Your task to perform on an android device: Open my contact list Image 0: 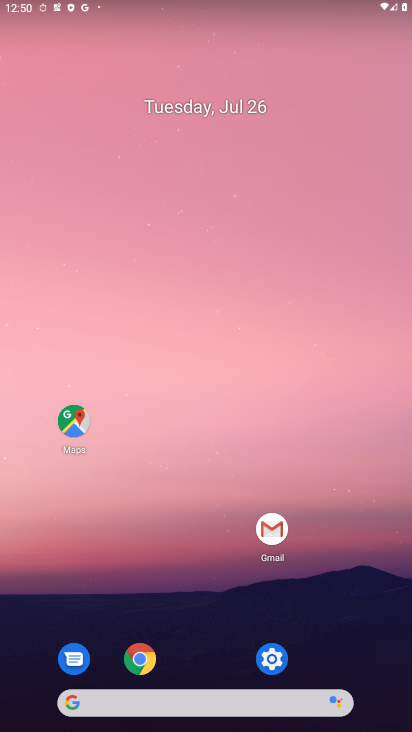
Step 0: drag from (245, 708) to (218, 138)
Your task to perform on an android device: Open my contact list Image 1: 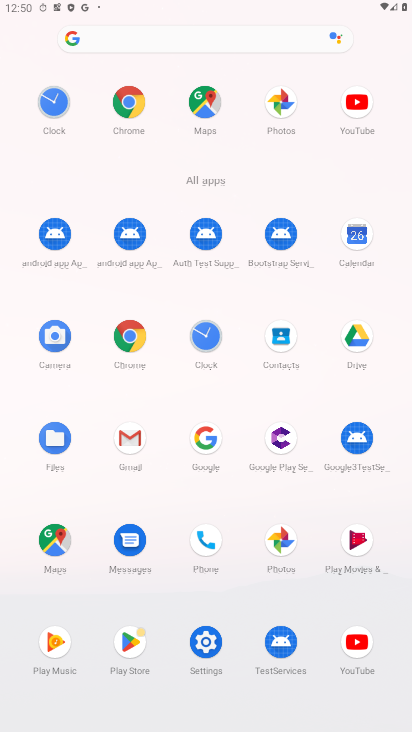
Step 1: click (211, 544)
Your task to perform on an android device: Open my contact list Image 2: 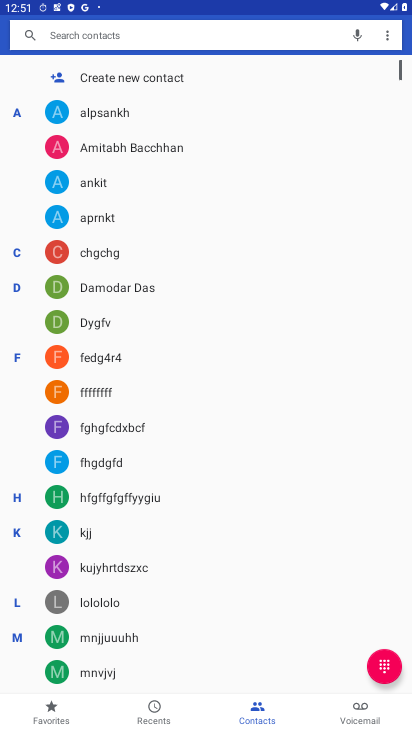
Step 2: task complete